Your task to perform on an android device: turn pop-ups off in chrome Image 0: 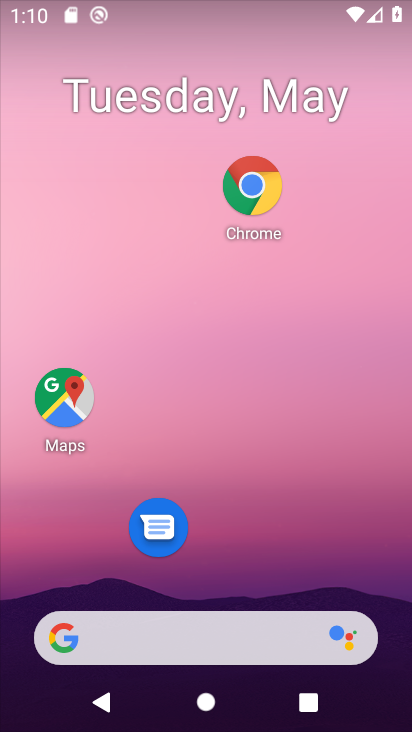
Step 0: click (253, 186)
Your task to perform on an android device: turn pop-ups off in chrome Image 1: 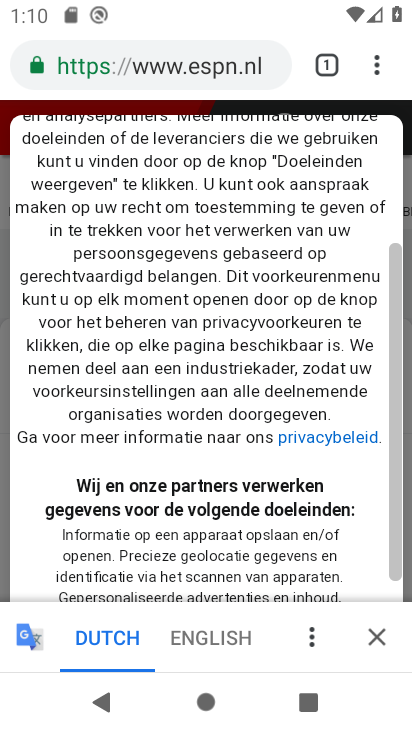
Step 1: drag from (309, 518) to (266, 291)
Your task to perform on an android device: turn pop-ups off in chrome Image 2: 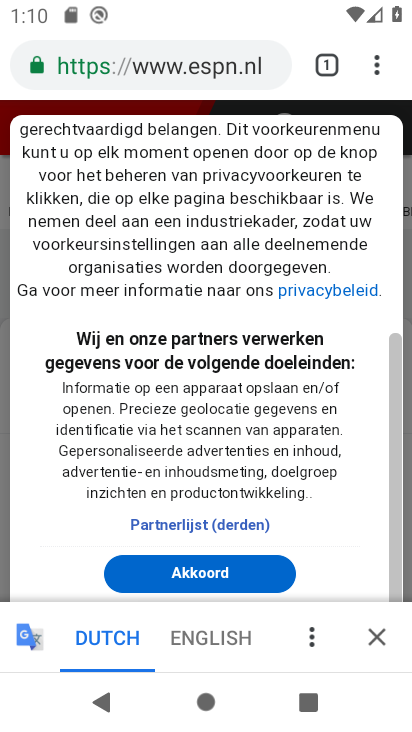
Step 2: click (374, 60)
Your task to perform on an android device: turn pop-ups off in chrome Image 3: 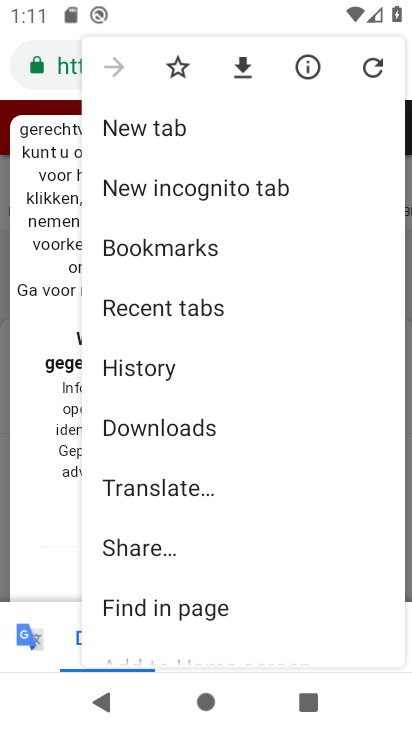
Step 3: drag from (273, 479) to (275, 43)
Your task to perform on an android device: turn pop-ups off in chrome Image 4: 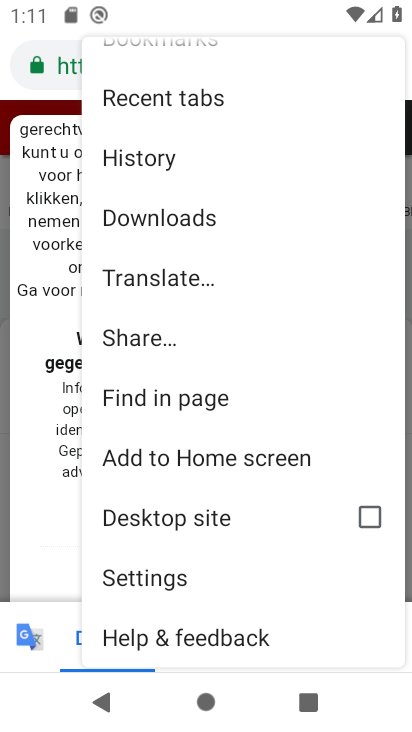
Step 4: click (162, 576)
Your task to perform on an android device: turn pop-ups off in chrome Image 5: 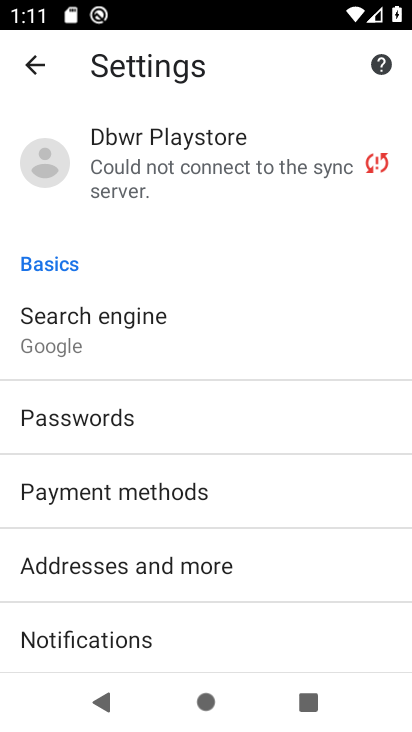
Step 5: drag from (283, 497) to (254, 142)
Your task to perform on an android device: turn pop-ups off in chrome Image 6: 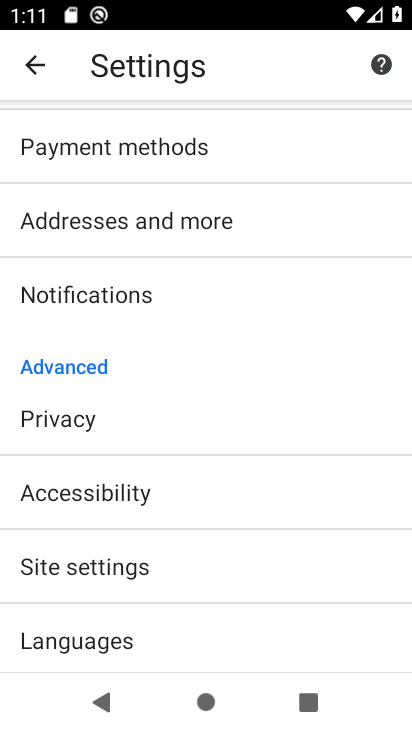
Step 6: drag from (248, 522) to (239, 251)
Your task to perform on an android device: turn pop-ups off in chrome Image 7: 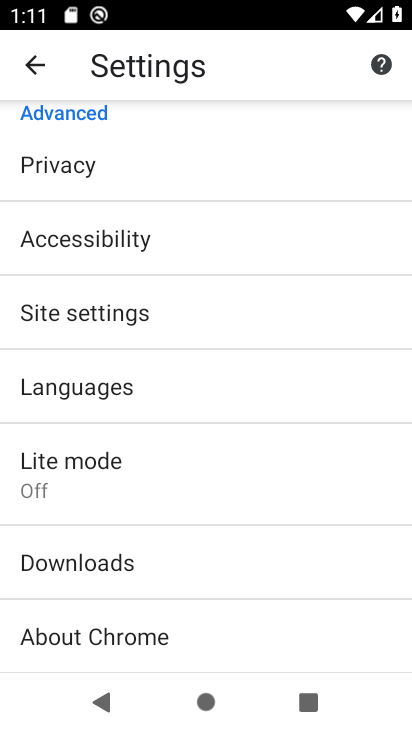
Step 7: click (110, 312)
Your task to perform on an android device: turn pop-ups off in chrome Image 8: 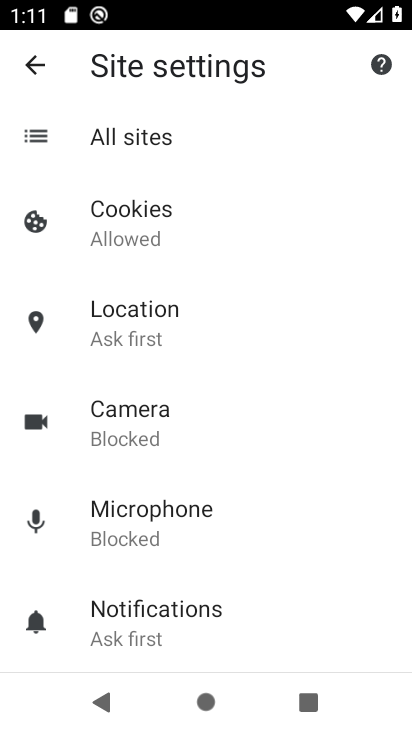
Step 8: drag from (223, 535) to (176, 49)
Your task to perform on an android device: turn pop-ups off in chrome Image 9: 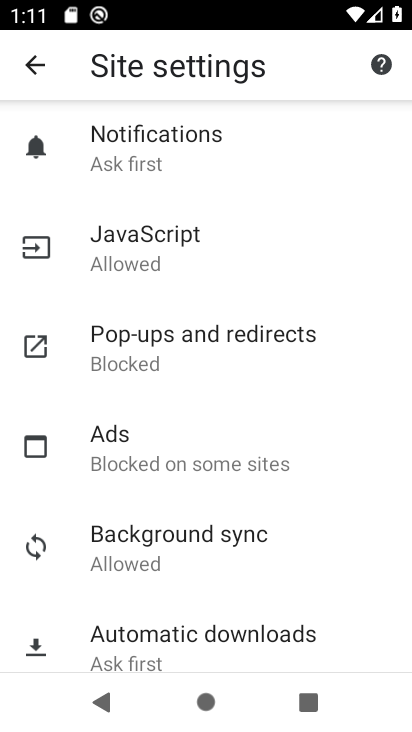
Step 9: click (127, 332)
Your task to perform on an android device: turn pop-ups off in chrome Image 10: 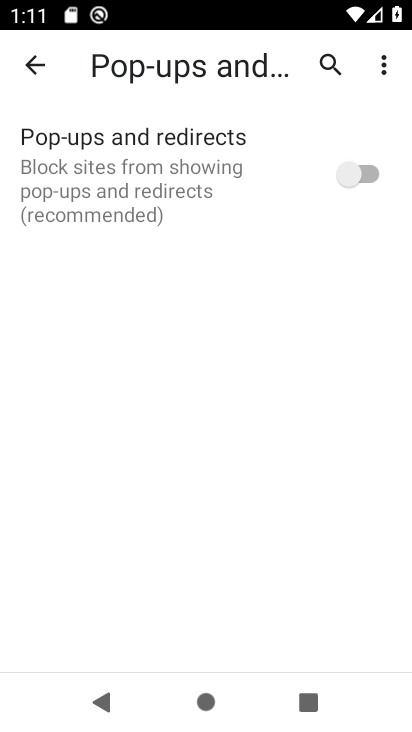
Step 10: task complete